Your task to perform on an android device: Go to Reddit.com Image 0: 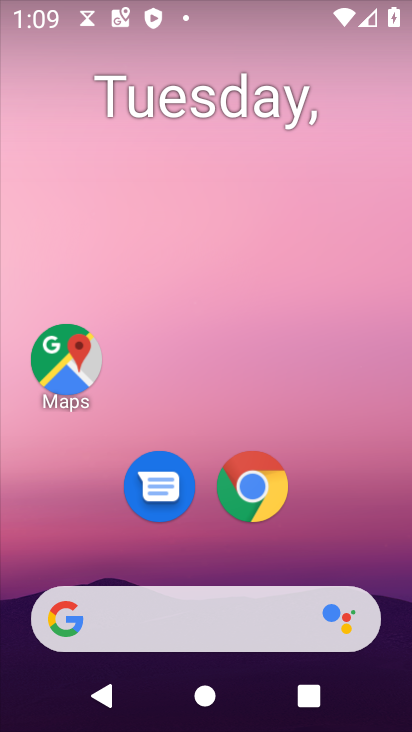
Step 0: click (272, 498)
Your task to perform on an android device: Go to Reddit.com Image 1: 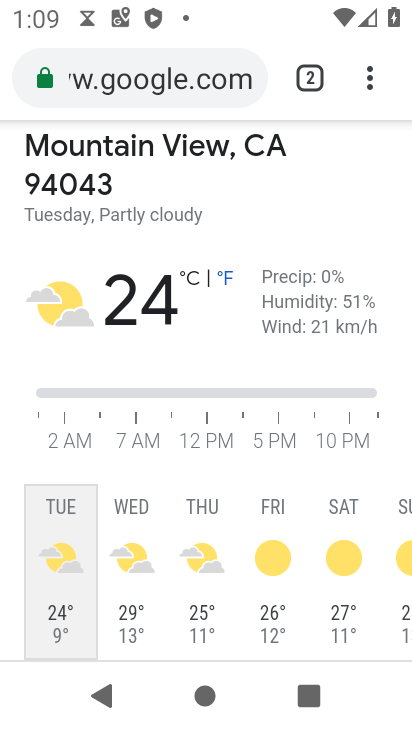
Step 1: click (224, 75)
Your task to perform on an android device: Go to Reddit.com Image 2: 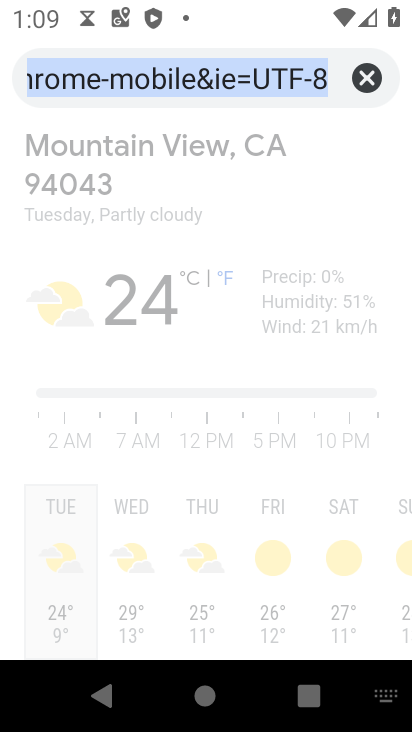
Step 2: type "reddit.com"
Your task to perform on an android device: Go to Reddit.com Image 3: 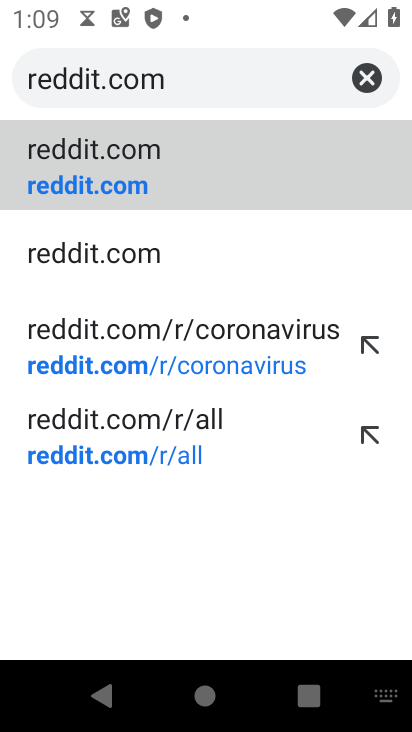
Step 3: click (120, 187)
Your task to perform on an android device: Go to Reddit.com Image 4: 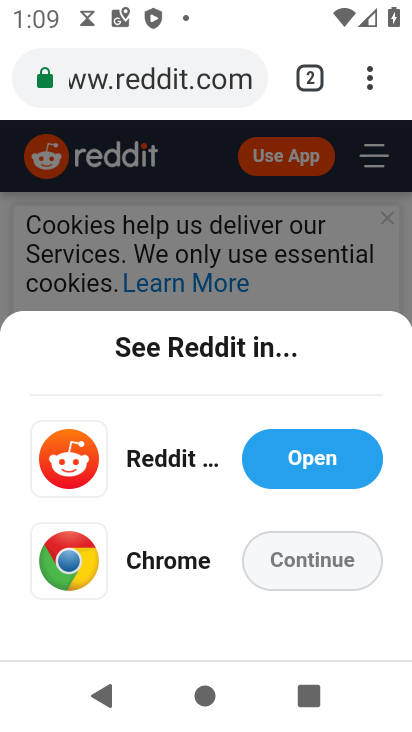
Step 4: click (261, 563)
Your task to perform on an android device: Go to Reddit.com Image 5: 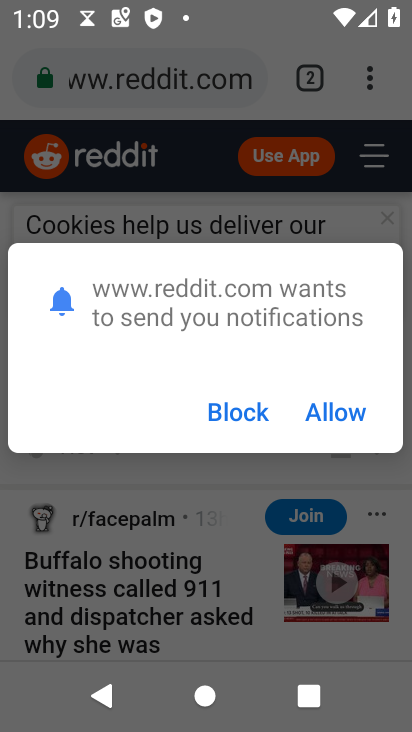
Step 5: task complete